Your task to perform on an android device: Search for Italian restaurants on Maps Image 0: 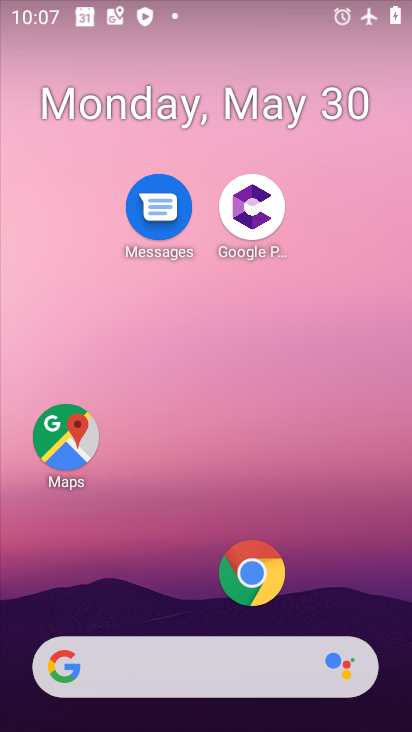
Step 0: drag from (214, 668) to (253, 45)
Your task to perform on an android device: Search for Italian restaurants on Maps Image 1: 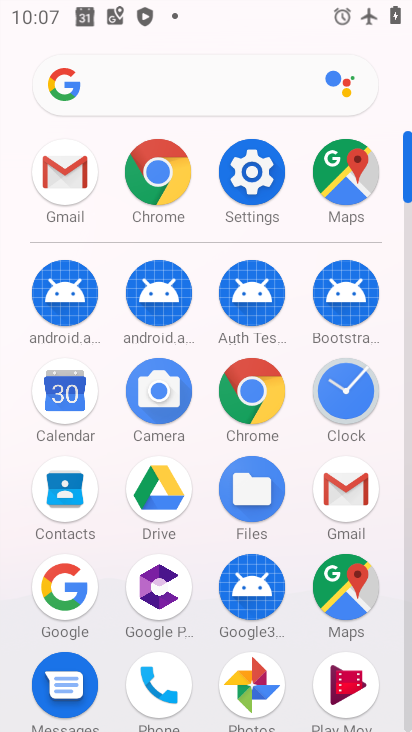
Step 1: click (353, 589)
Your task to perform on an android device: Search for Italian restaurants on Maps Image 2: 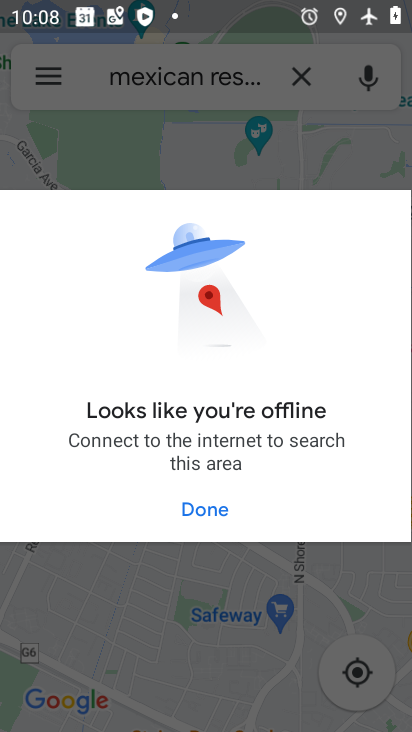
Step 2: click (212, 504)
Your task to perform on an android device: Search for Italian restaurants on Maps Image 3: 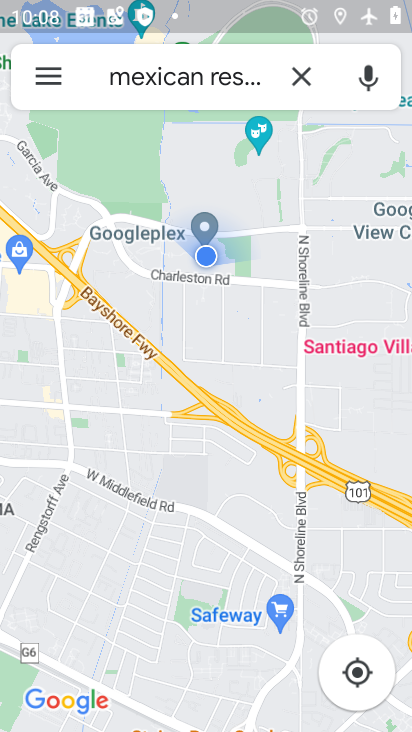
Step 3: click (303, 79)
Your task to perform on an android device: Search for Italian restaurants on Maps Image 4: 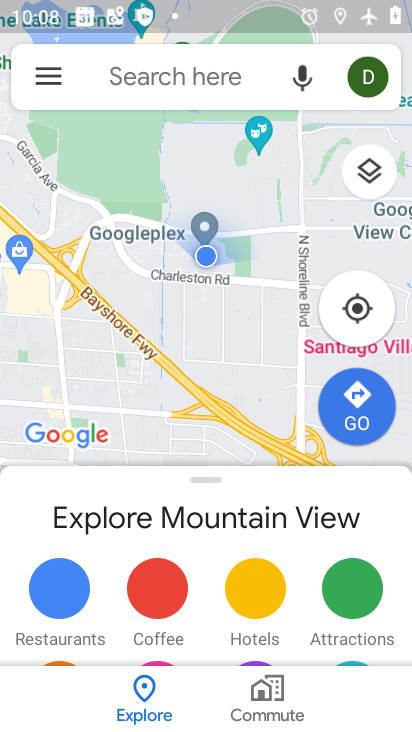
Step 4: click (211, 80)
Your task to perform on an android device: Search for Italian restaurants on Maps Image 5: 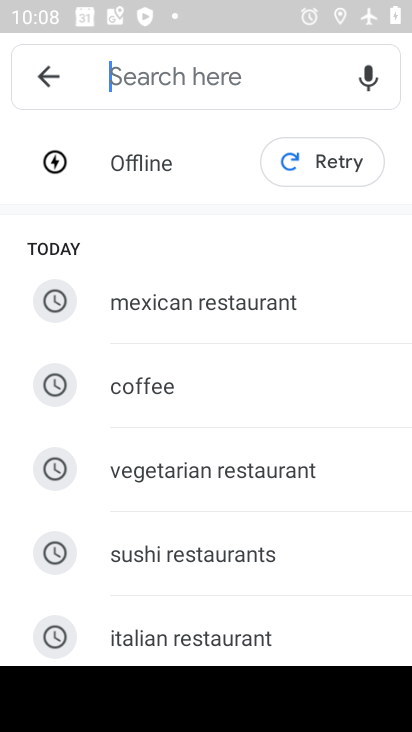
Step 5: click (244, 628)
Your task to perform on an android device: Search for Italian restaurants on Maps Image 6: 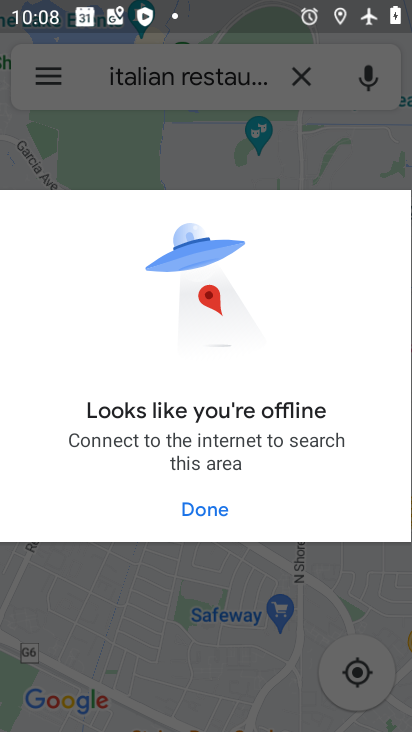
Step 6: task complete